Your task to perform on an android device: turn off sleep mode Image 0: 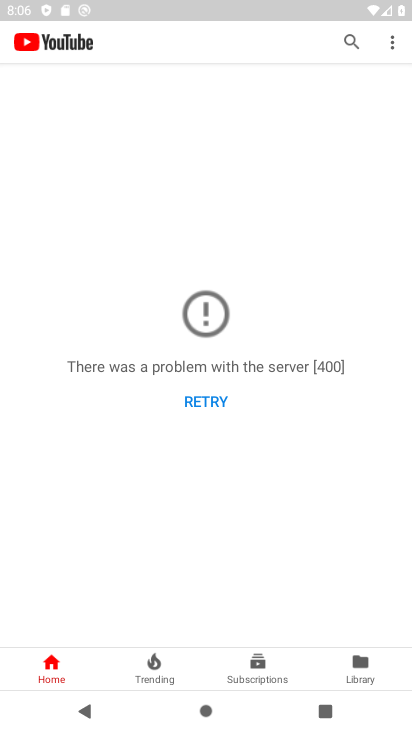
Step 0: press home button
Your task to perform on an android device: turn off sleep mode Image 1: 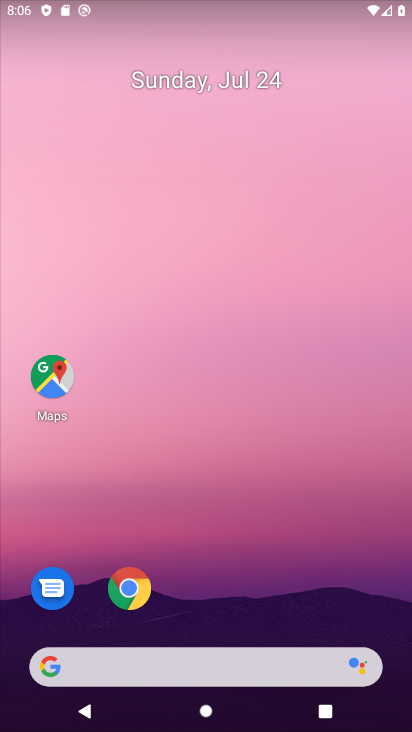
Step 1: drag from (356, 459) to (311, 62)
Your task to perform on an android device: turn off sleep mode Image 2: 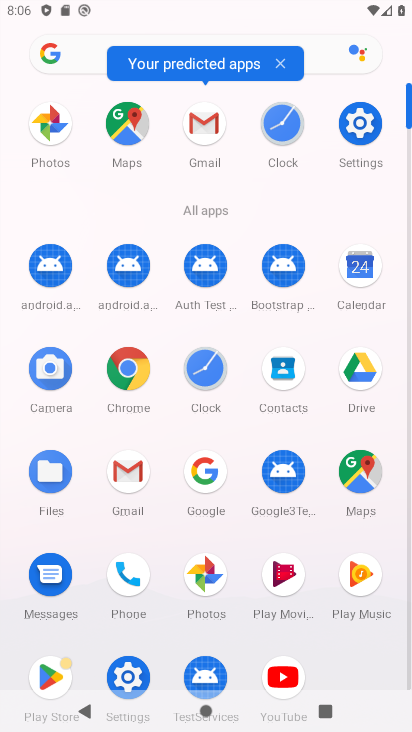
Step 2: click (128, 675)
Your task to perform on an android device: turn off sleep mode Image 3: 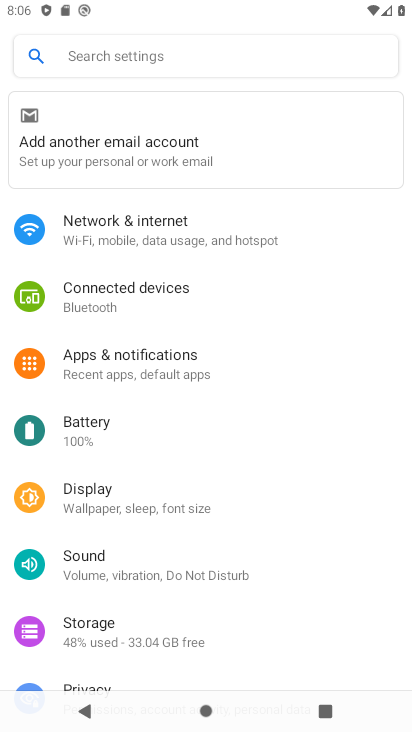
Step 3: click (112, 498)
Your task to perform on an android device: turn off sleep mode Image 4: 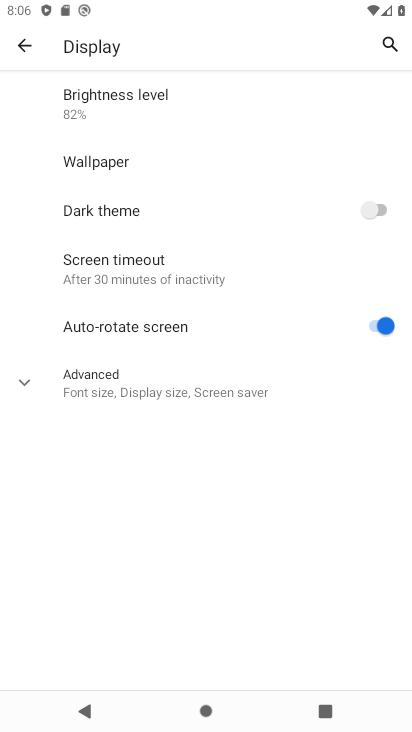
Step 4: click (24, 386)
Your task to perform on an android device: turn off sleep mode Image 5: 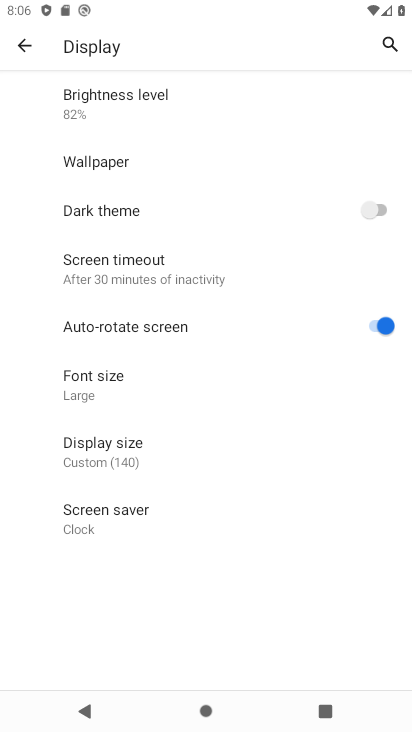
Step 5: task complete